Your task to perform on an android device: Open Chrome and go to the settings page Image 0: 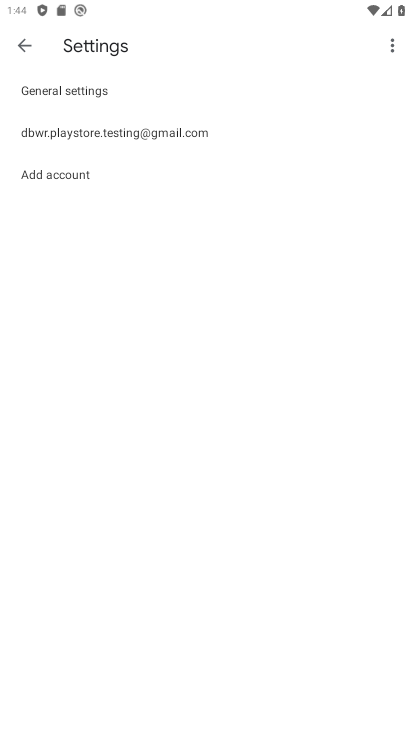
Step 0: press home button
Your task to perform on an android device: Open Chrome and go to the settings page Image 1: 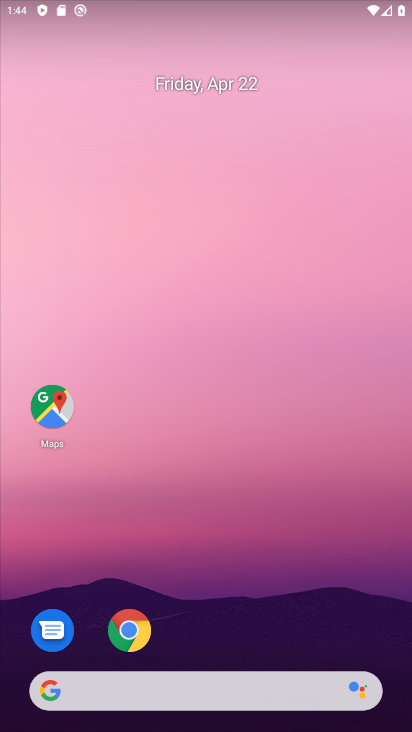
Step 1: click (138, 634)
Your task to perform on an android device: Open Chrome and go to the settings page Image 2: 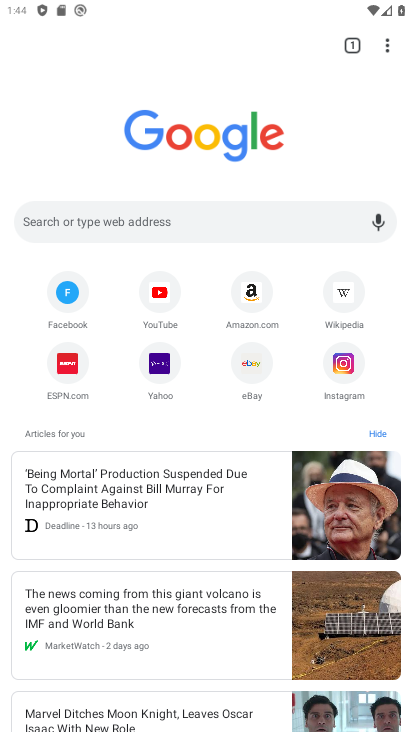
Step 2: click (387, 37)
Your task to perform on an android device: Open Chrome and go to the settings page Image 3: 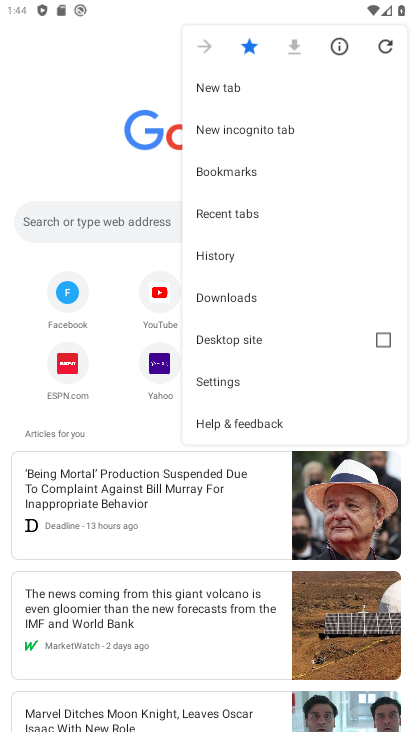
Step 3: click (231, 377)
Your task to perform on an android device: Open Chrome and go to the settings page Image 4: 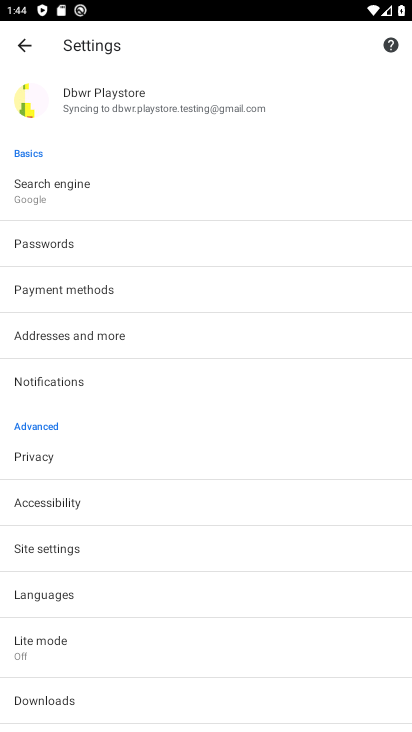
Step 4: task complete